Your task to perform on an android device: see creations saved in the google photos Image 0: 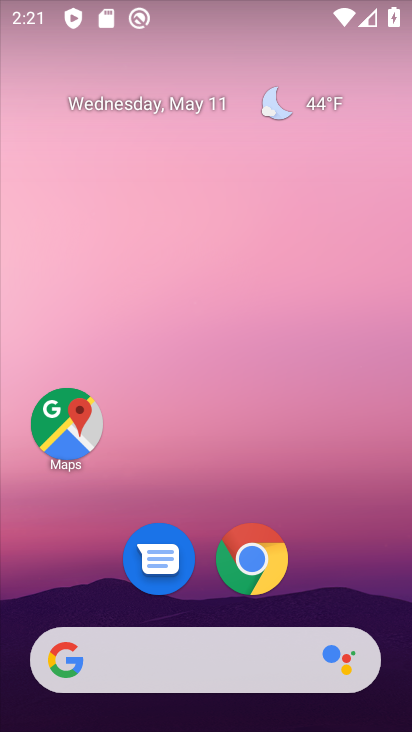
Step 0: drag from (330, 584) to (216, 119)
Your task to perform on an android device: see creations saved in the google photos Image 1: 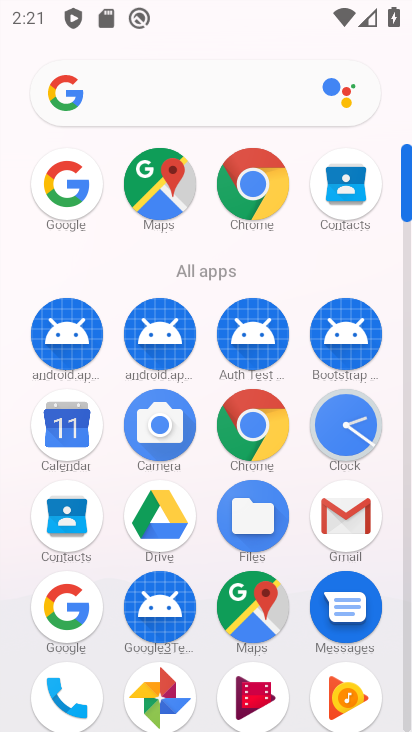
Step 1: click (154, 698)
Your task to perform on an android device: see creations saved in the google photos Image 2: 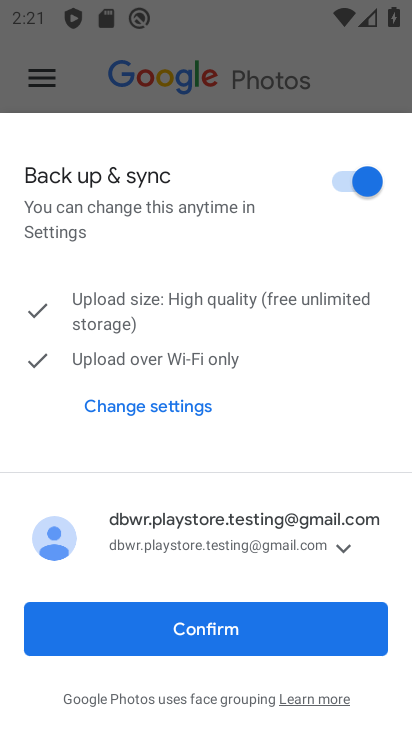
Step 2: click (253, 628)
Your task to perform on an android device: see creations saved in the google photos Image 3: 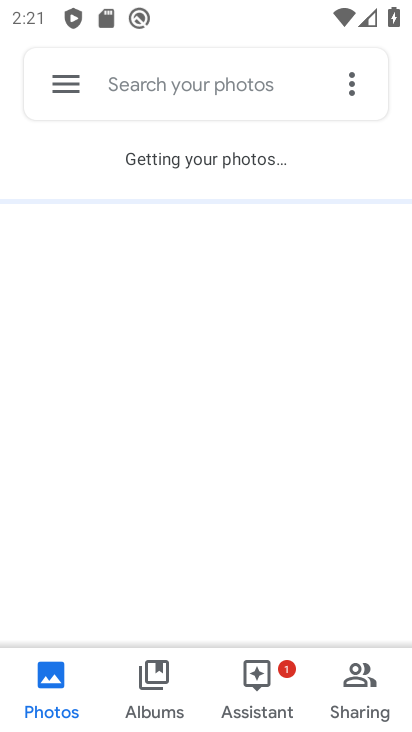
Step 3: click (163, 81)
Your task to perform on an android device: see creations saved in the google photos Image 4: 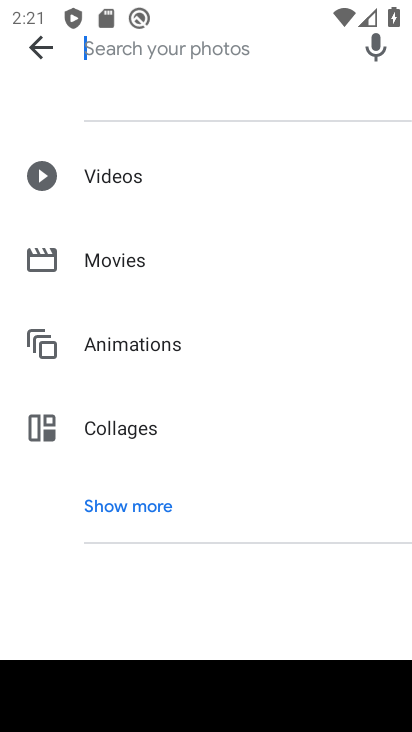
Step 4: type "creations"
Your task to perform on an android device: see creations saved in the google photos Image 5: 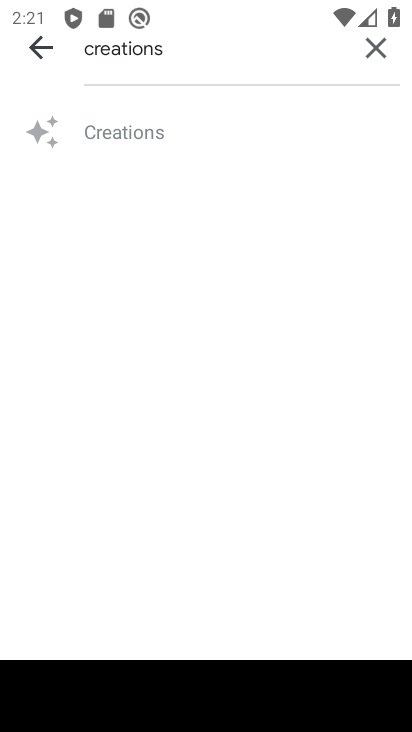
Step 5: click (154, 136)
Your task to perform on an android device: see creations saved in the google photos Image 6: 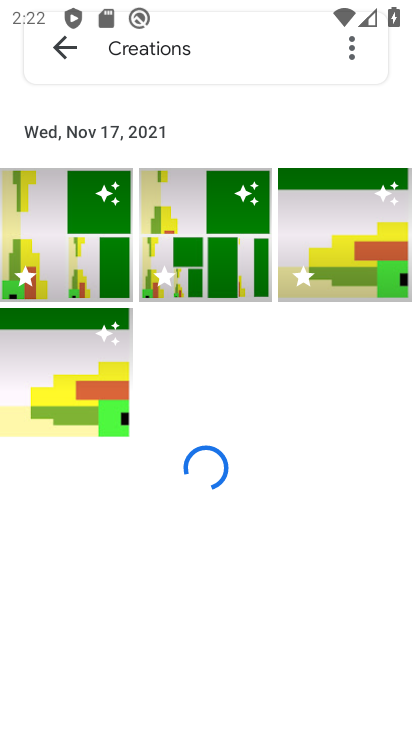
Step 6: task complete